Your task to perform on an android device: Turn off the flashlight Image 0: 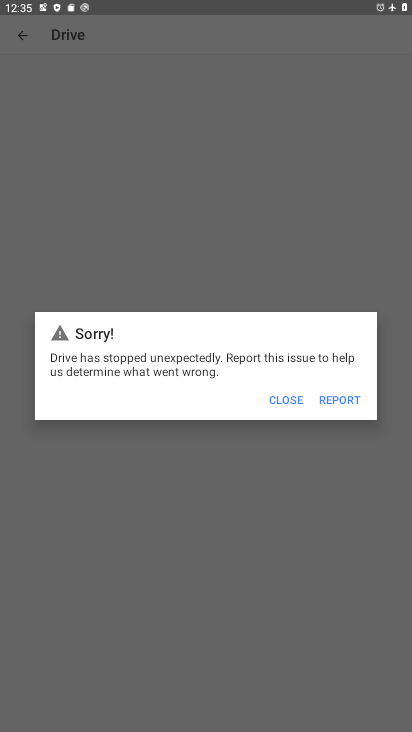
Step 0: drag from (272, 461) to (289, 327)
Your task to perform on an android device: Turn off the flashlight Image 1: 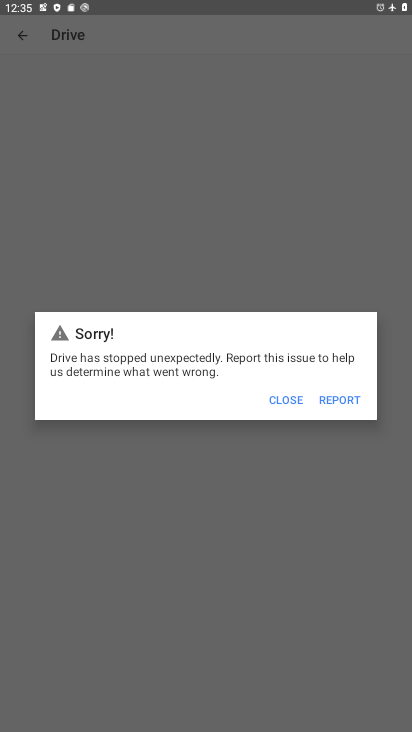
Step 1: press home button
Your task to perform on an android device: Turn off the flashlight Image 2: 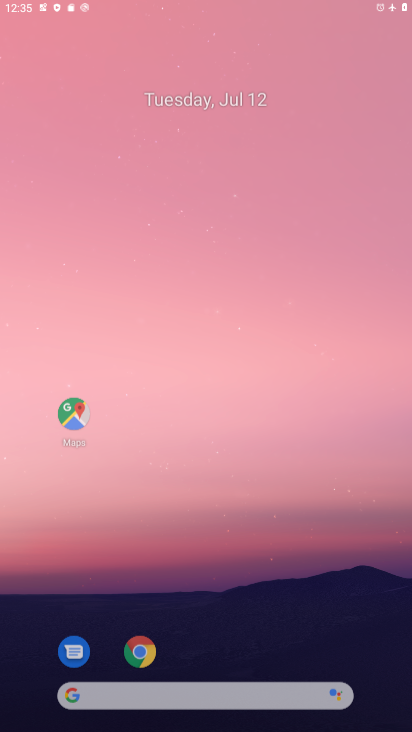
Step 2: drag from (218, 641) to (306, 105)
Your task to perform on an android device: Turn off the flashlight Image 3: 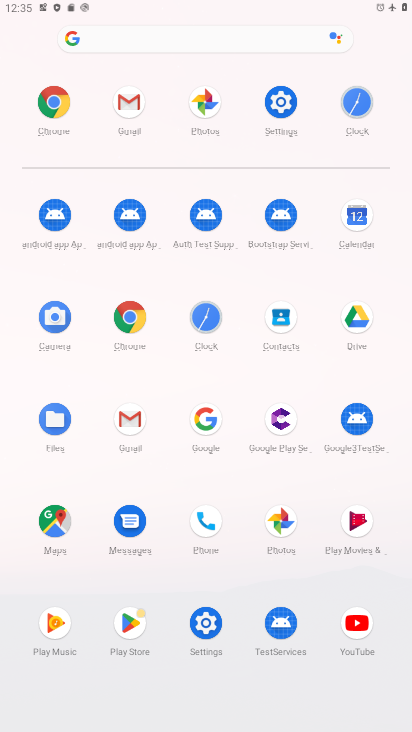
Step 3: click (214, 613)
Your task to perform on an android device: Turn off the flashlight Image 4: 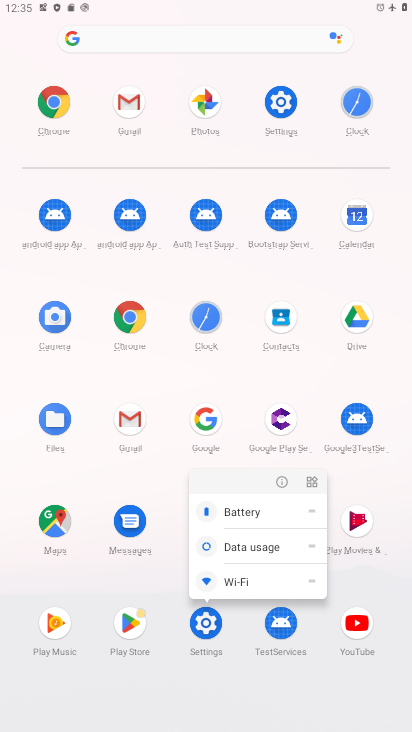
Step 4: click (276, 483)
Your task to perform on an android device: Turn off the flashlight Image 5: 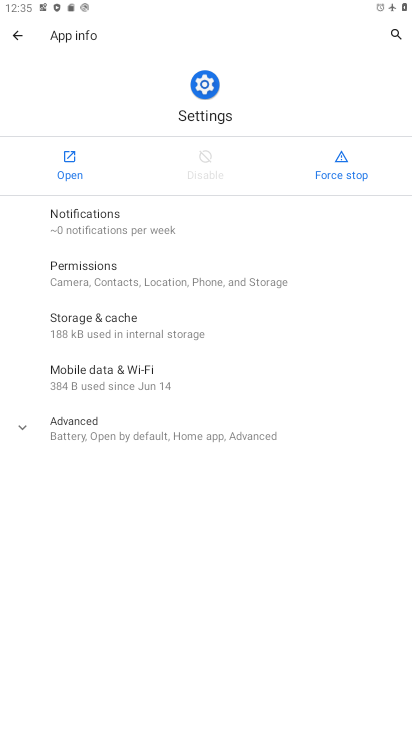
Step 5: click (59, 155)
Your task to perform on an android device: Turn off the flashlight Image 6: 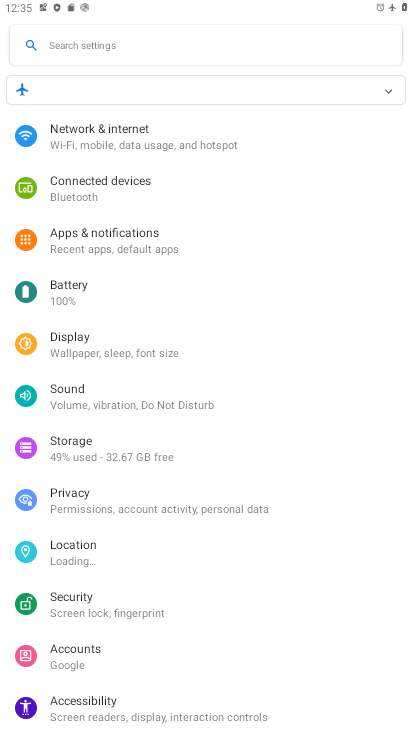
Step 6: click (111, 46)
Your task to perform on an android device: Turn off the flashlight Image 7: 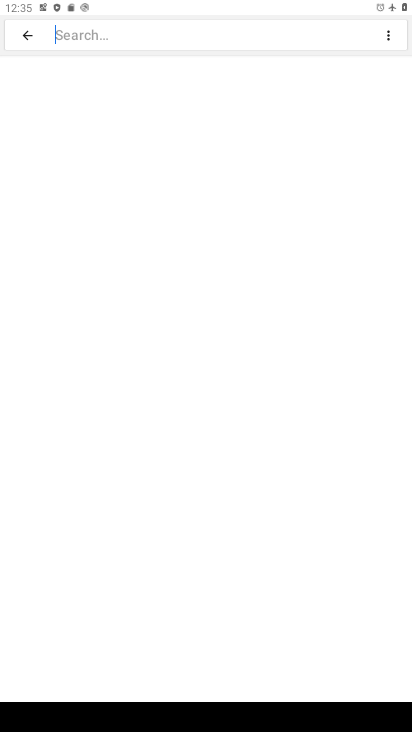
Step 7: click (95, 84)
Your task to perform on an android device: Turn off the flashlight Image 8: 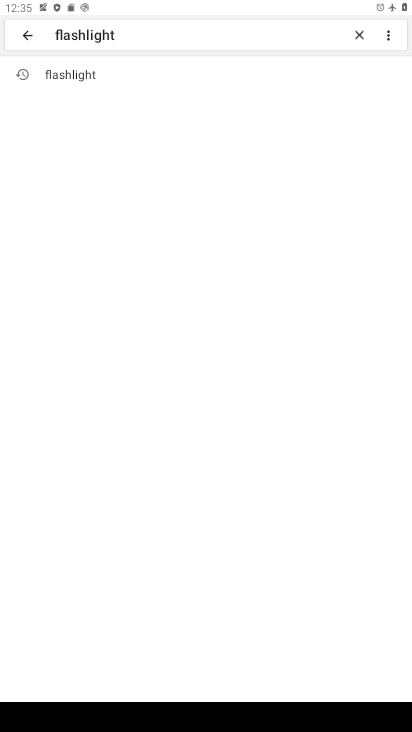
Step 8: click (82, 75)
Your task to perform on an android device: Turn off the flashlight Image 9: 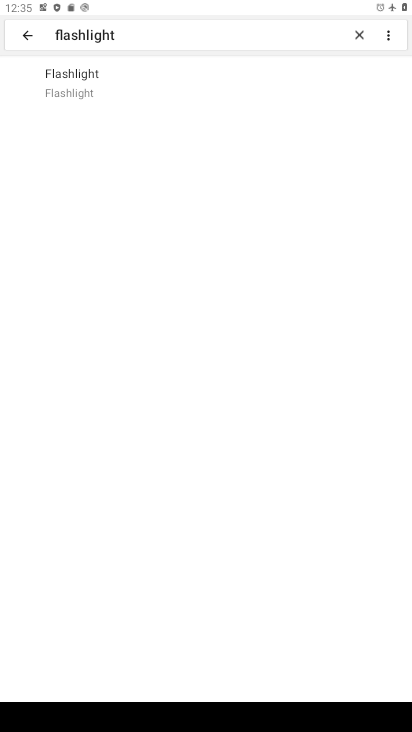
Step 9: task complete